Your task to perform on an android device: find which apps use the phone's location Image 0: 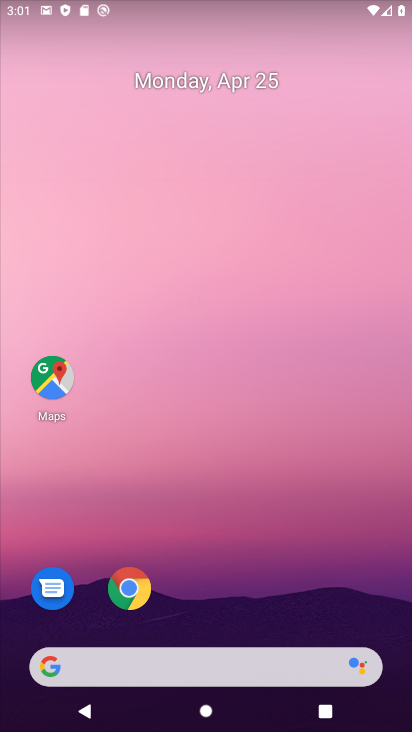
Step 0: click (316, 516)
Your task to perform on an android device: find which apps use the phone's location Image 1: 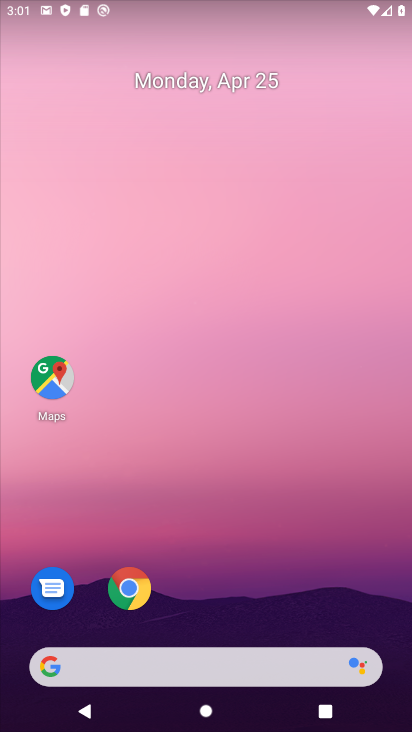
Step 1: drag from (212, 651) to (307, 117)
Your task to perform on an android device: find which apps use the phone's location Image 2: 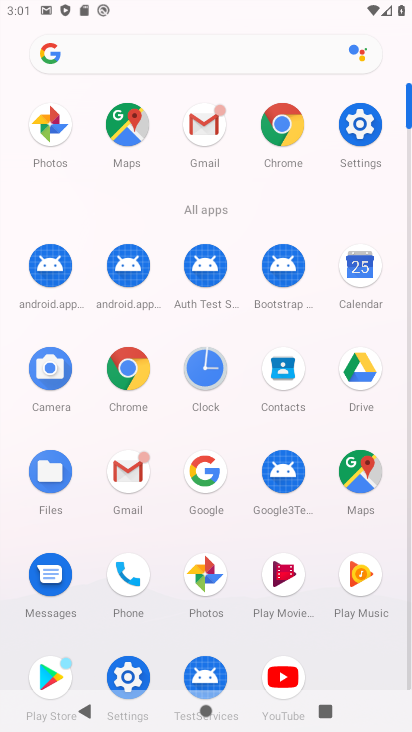
Step 2: click (359, 130)
Your task to perform on an android device: find which apps use the phone's location Image 3: 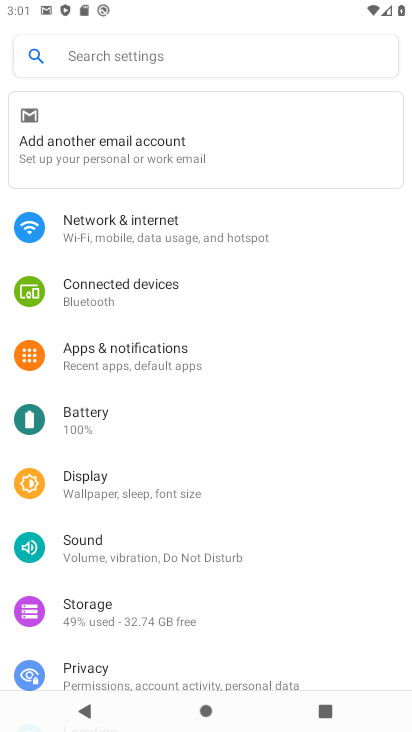
Step 3: drag from (156, 583) to (246, 214)
Your task to perform on an android device: find which apps use the phone's location Image 4: 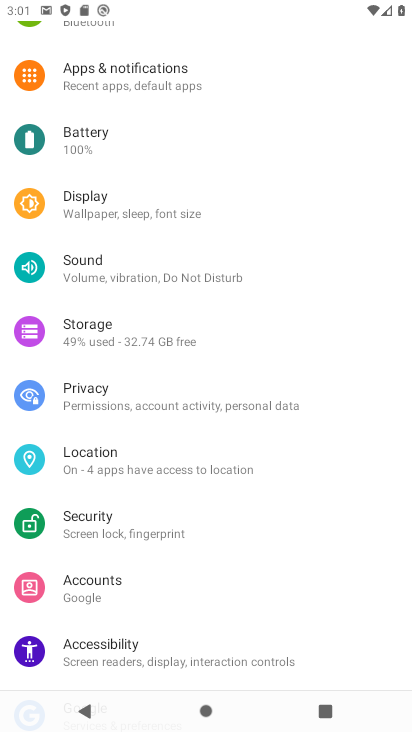
Step 4: click (132, 457)
Your task to perform on an android device: find which apps use the phone's location Image 5: 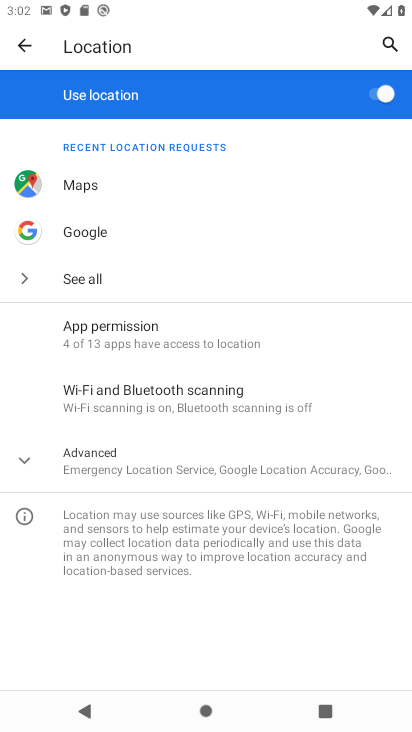
Step 5: click (177, 351)
Your task to perform on an android device: find which apps use the phone's location Image 6: 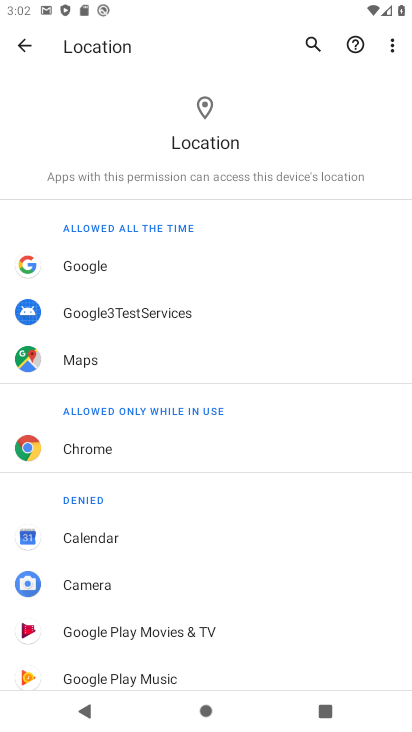
Step 6: task complete